Your task to perform on an android device: Open the stopwatch Image 0: 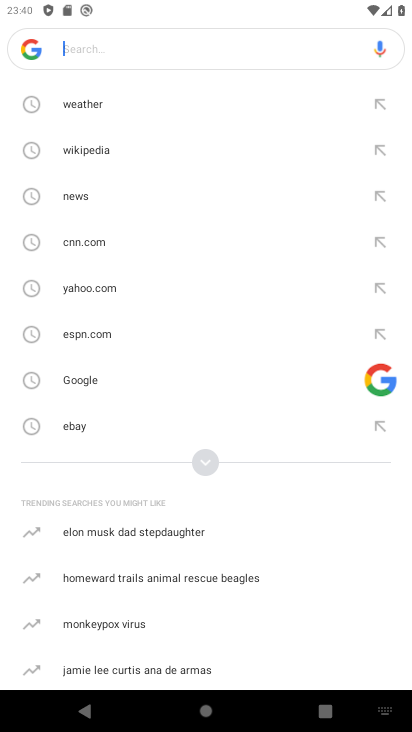
Step 0: press home button
Your task to perform on an android device: Open the stopwatch Image 1: 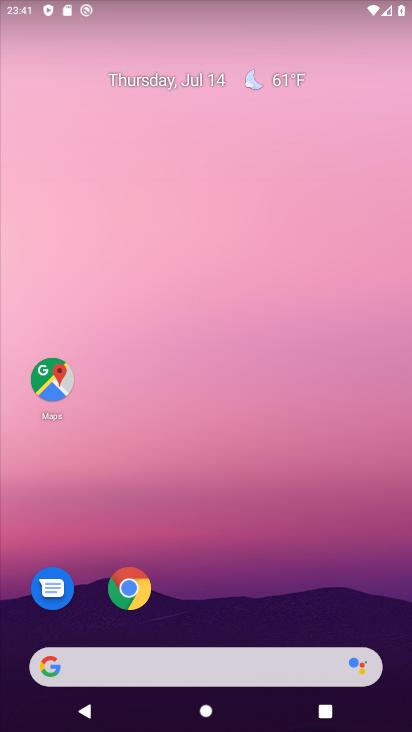
Step 1: drag from (204, 621) to (191, 58)
Your task to perform on an android device: Open the stopwatch Image 2: 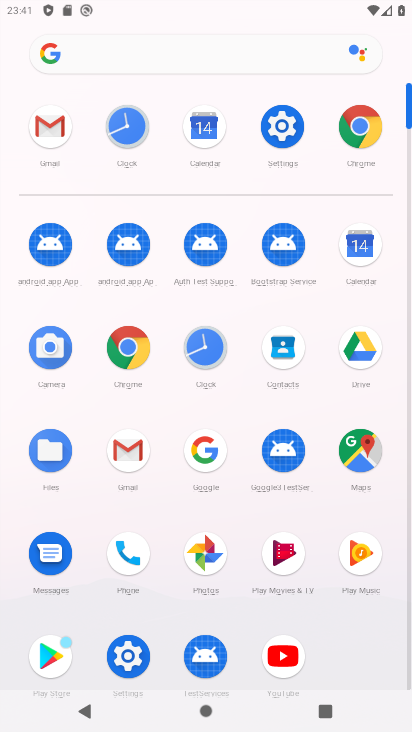
Step 2: click (202, 356)
Your task to perform on an android device: Open the stopwatch Image 3: 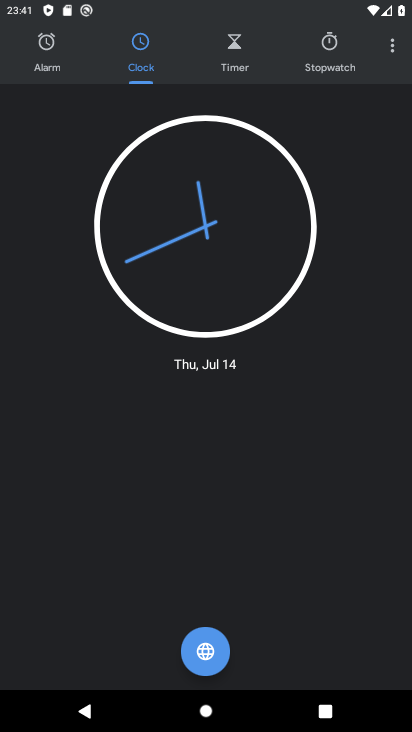
Step 3: click (326, 57)
Your task to perform on an android device: Open the stopwatch Image 4: 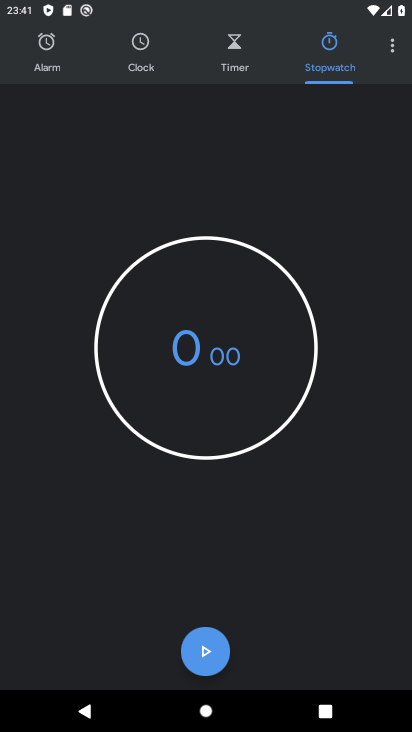
Step 4: click (208, 662)
Your task to perform on an android device: Open the stopwatch Image 5: 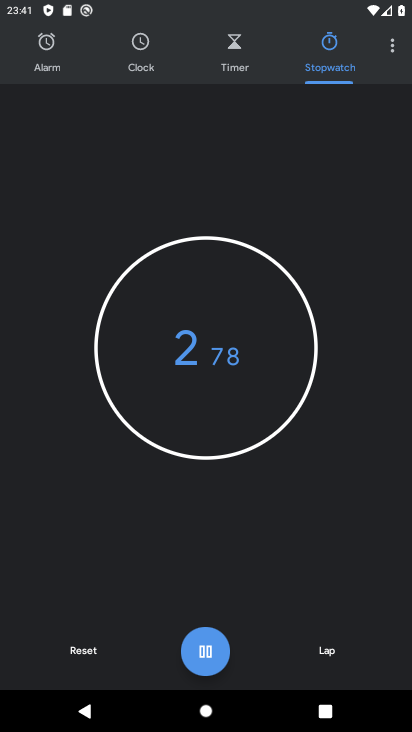
Step 5: task complete